Your task to perform on an android device: Open the camera Image 0: 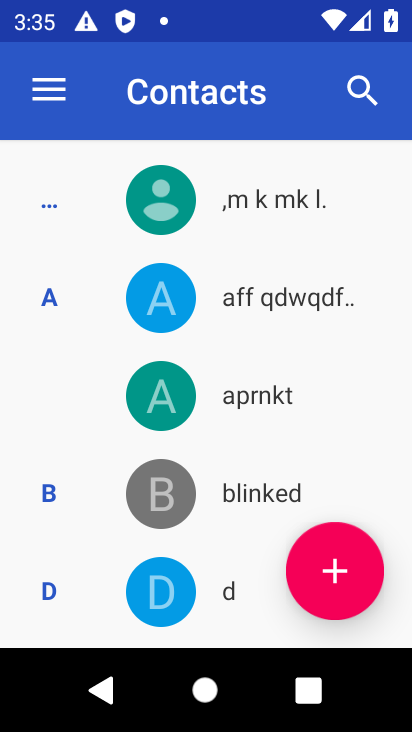
Step 0: press home button
Your task to perform on an android device: Open the camera Image 1: 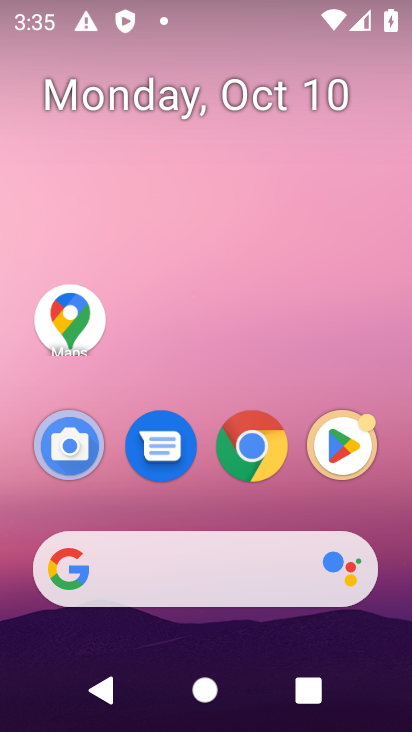
Step 1: click (78, 441)
Your task to perform on an android device: Open the camera Image 2: 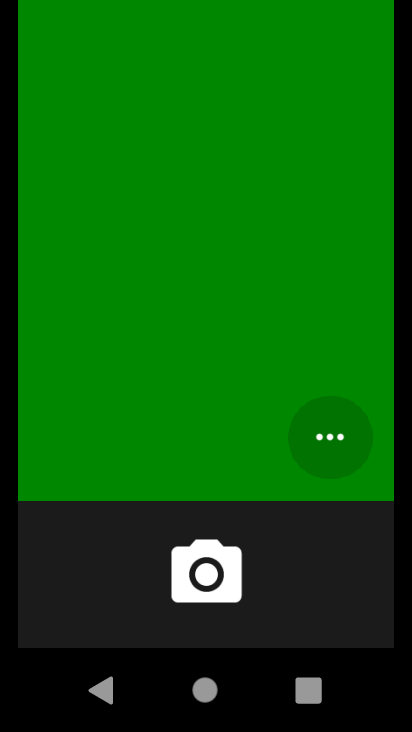
Step 2: task complete